Your task to perform on an android device: open the mobile data screen to see how much data has been used Image 0: 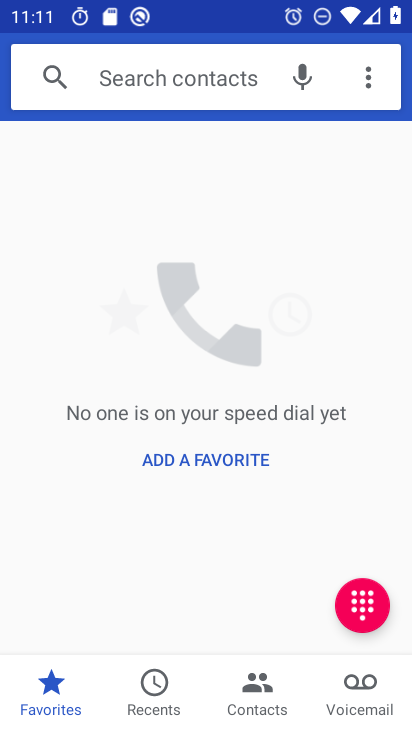
Step 0: press home button
Your task to perform on an android device: open the mobile data screen to see how much data has been used Image 1: 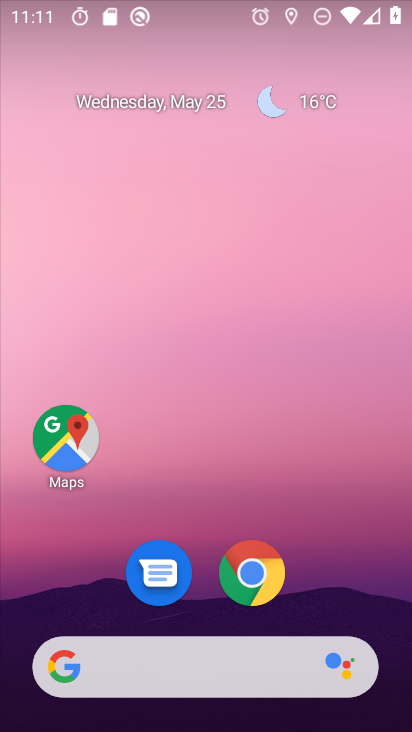
Step 1: drag from (363, 625) to (291, 19)
Your task to perform on an android device: open the mobile data screen to see how much data has been used Image 2: 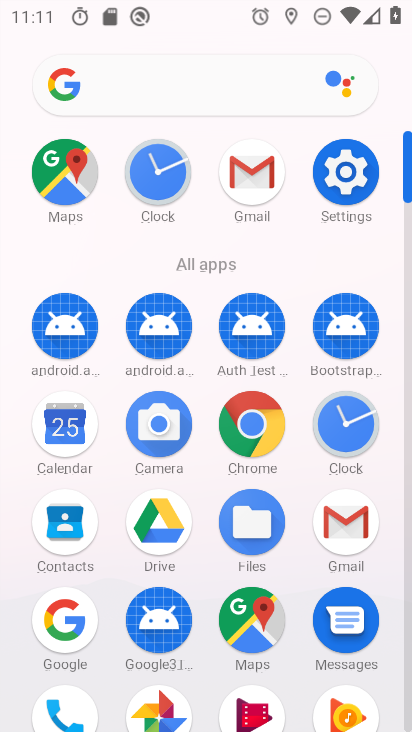
Step 2: click (356, 166)
Your task to perform on an android device: open the mobile data screen to see how much data has been used Image 3: 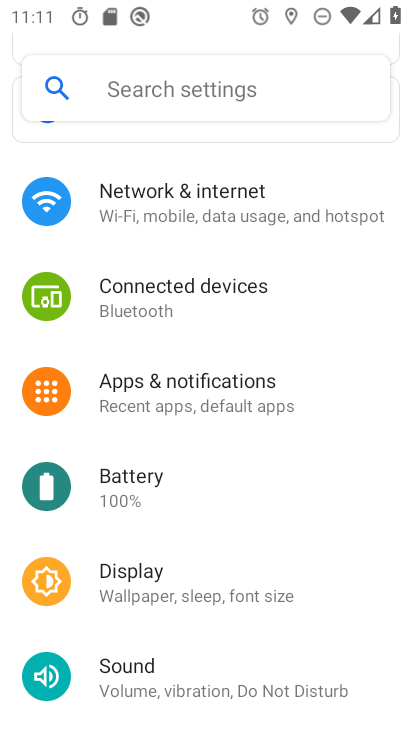
Step 3: click (177, 216)
Your task to perform on an android device: open the mobile data screen to see how much data has been used Image 4: 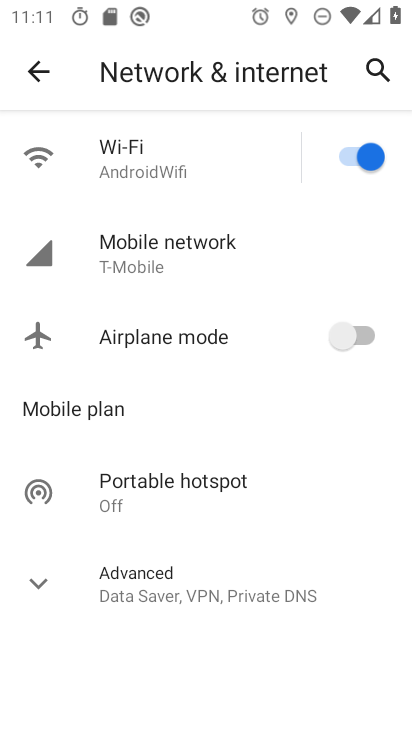
Step 4: click (150, 247)
Your task to perform on an android device: open the mobile data screen to see how much data has been used Image 5: 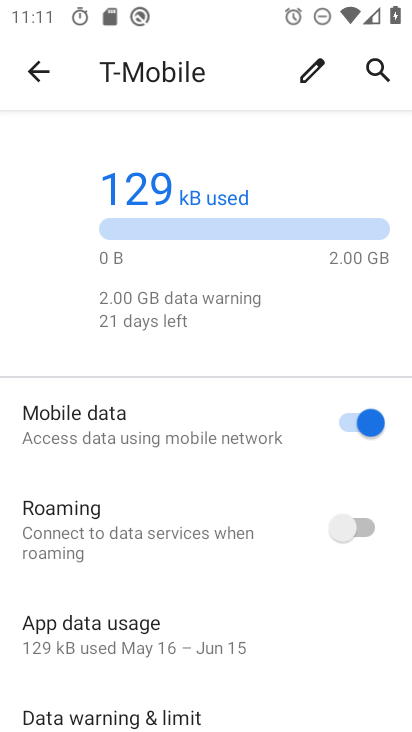
Step 5: drag from (154, 466) to (136, 253)
Your task to perform on an android device: open the mobile data screen to see how much data has been used Image 6: 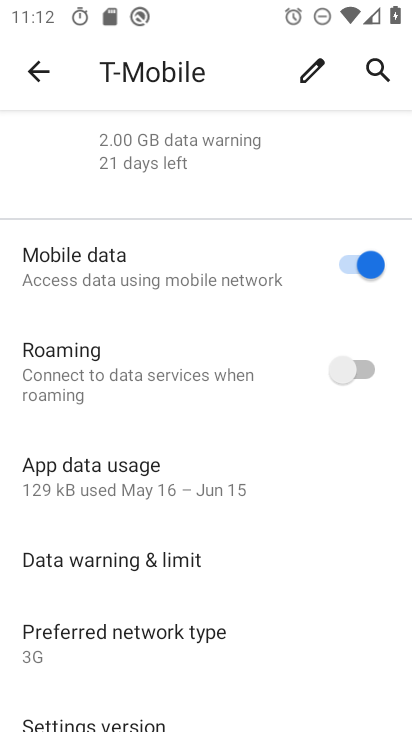
Step 6: click (80, 462)
Your task to perform on an android device: open the mobile data screen to see how much data has been used Image 7: 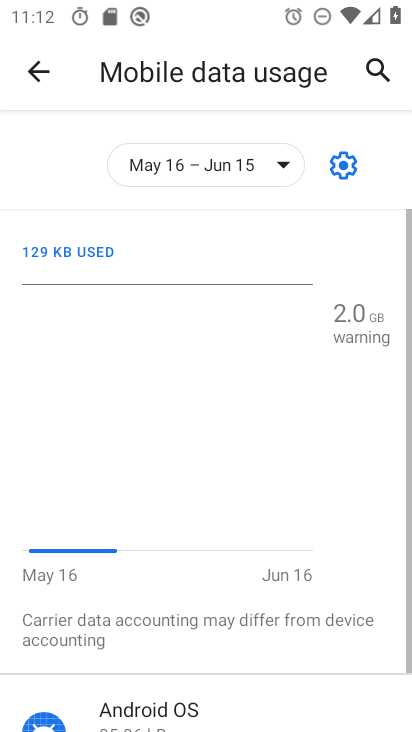
Step 7: task complete